Your task to perform on an android device: Go to Yahoo.com Image 0: 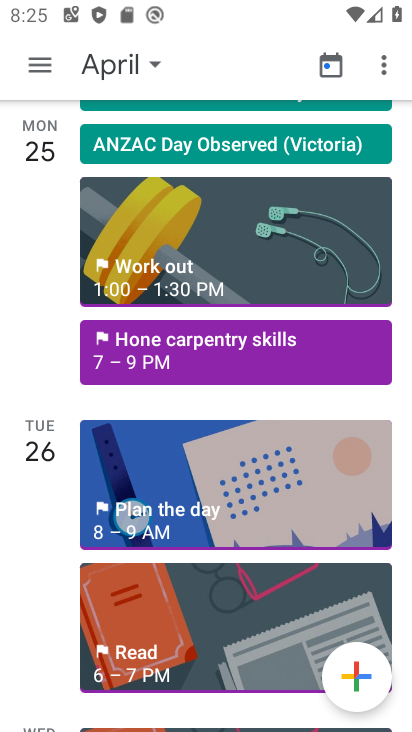
Step 0: press home button
Your task to perform on an android device: Go to Yahoo.com Image 1: 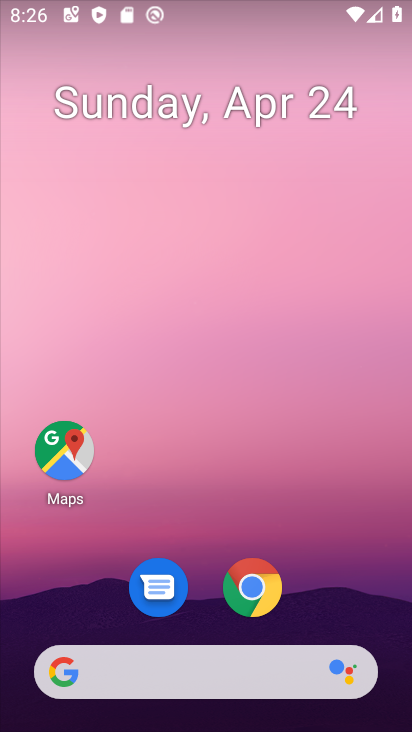
Step 1: click (259, 590)
Your task to perform on an android device: Go to Yahoo.com Image 2: 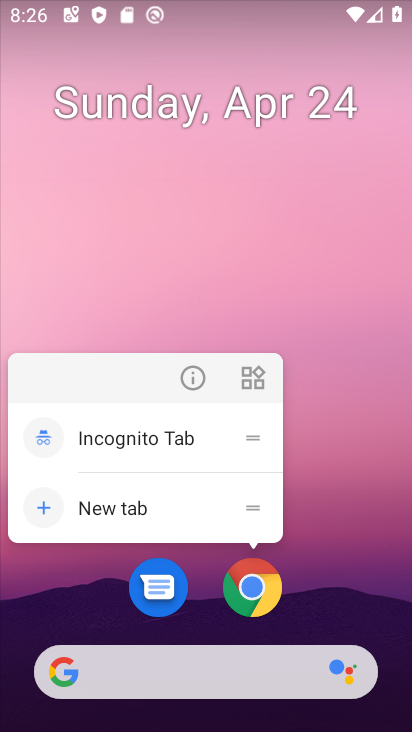
Step 2: click (259, 590)
Your task to perform on an android device: Go to Yahoo.com Image 3: 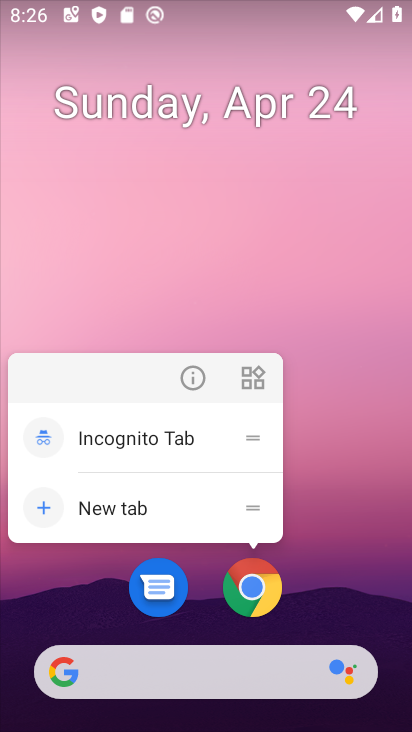
Step 3: click (241, 590)
Your task to perform on an android device: Go to Yahoo.com Image 4: 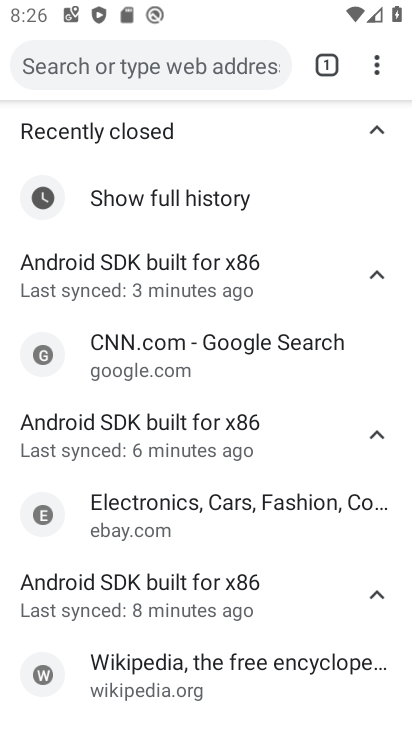
Step 4: click (322, 60)
Your task to perform on an android device: Go to Yahoo.com Image 5: 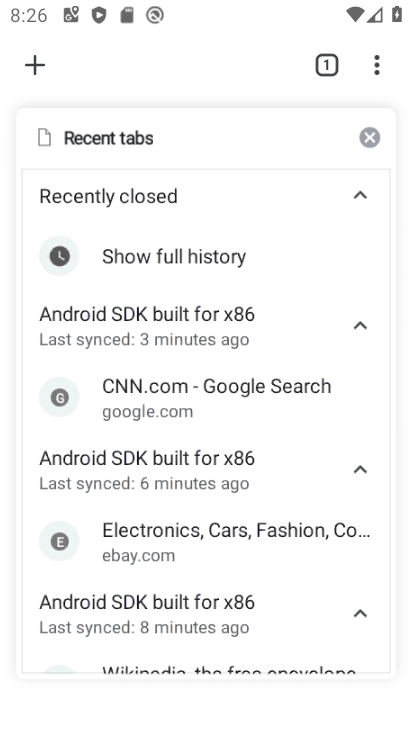
Step 5: click (365, 140)
Your task to perform on an android device: Go to Yahoo.com Image 6: 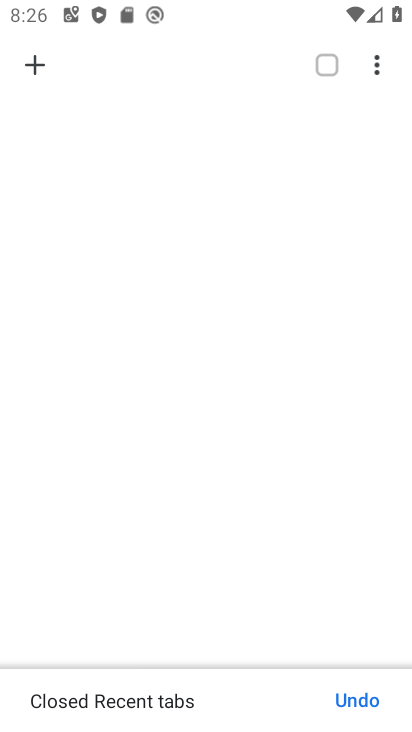
Step 6: click (36, 70)
Your task to perform on an android device: Go to Yahoo.com Image 7: 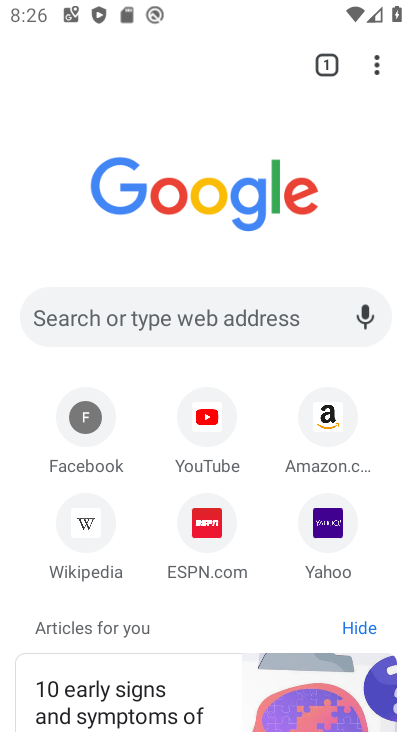
Step 7: click (318, 520)
Your task to perform on an android device: Go to Yahoo.com Image 8: 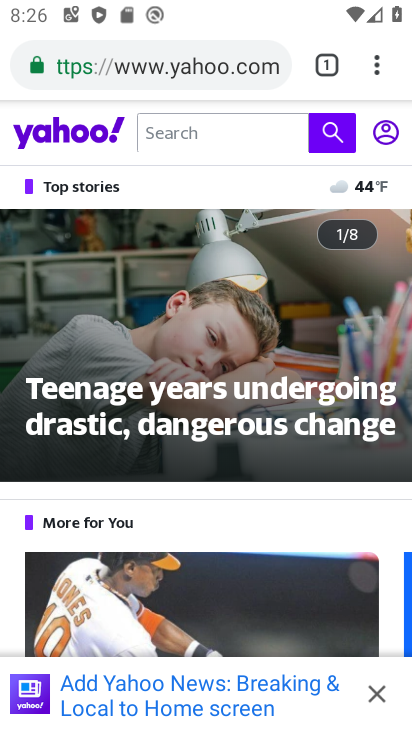
Step 8: task complete